Your task to perform on an android device: turn off smart reply in the gmail app Image 0: 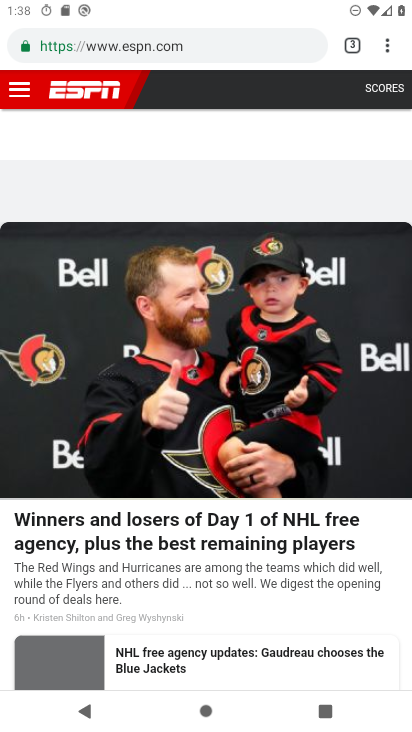
Step 0: press home button
Your task to perform on an android device: turn off smart reply in the gmail app Image 1: 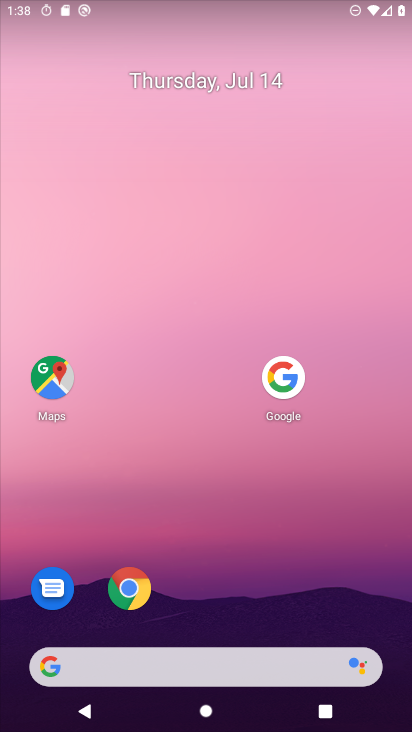
Step 1: drag from (181, 669) to (277, 158)
Your task to perform on an android device: turn off smart reply in the gmail app Image 2: 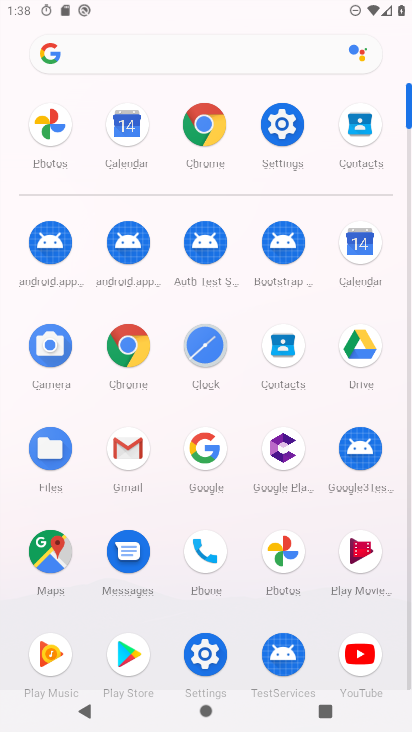
Step 2: click (126, 457)
Your task to perform on an android device: turn off smart reply in the gmail app Image 3: 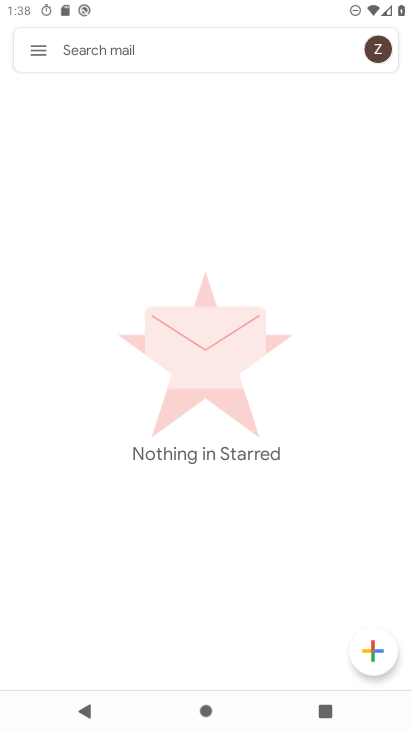
Step 3: click (37, 50)
Your task to perform on an android device: turn off smart reply in the gmail app Image 4: 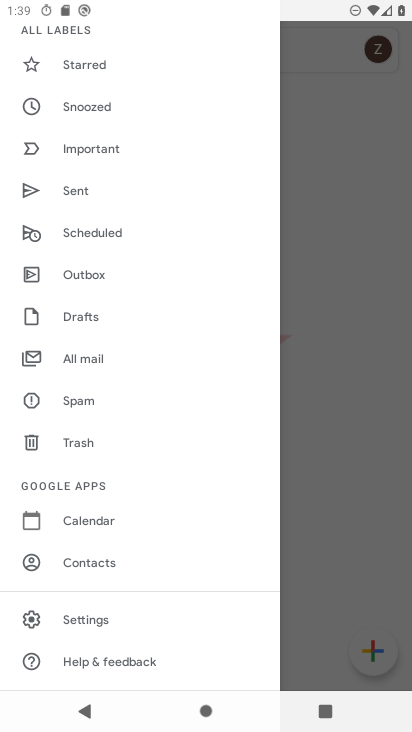
Step 4: click (101, 617)
Your task to perform on an android device: turn off smart reply in the gmail app Image 5: 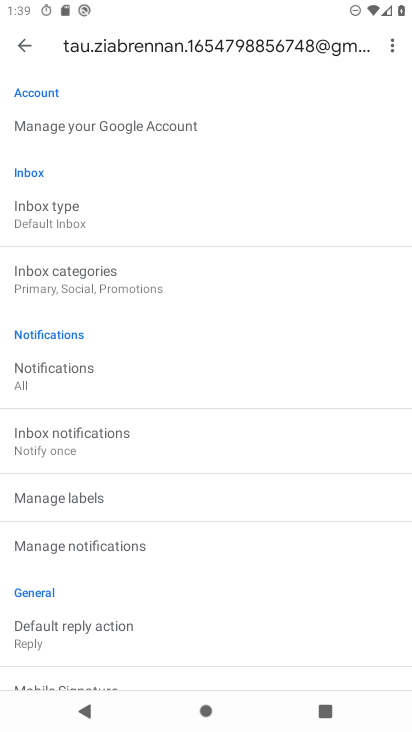
Step 5: drag from (211, 586) to (303, 0)
Your task to perform on an android device: turn off smart reply in the gmail app Image 6: 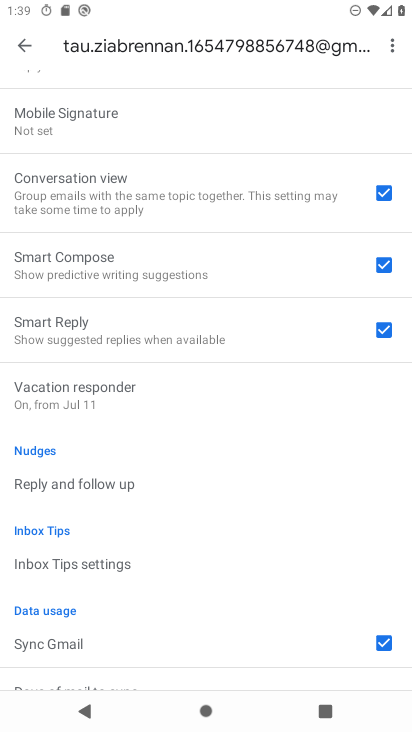
Step 6: click (386, 329)
Your task to perform on an android device: turn off smart reply in the gmail app Image 7: 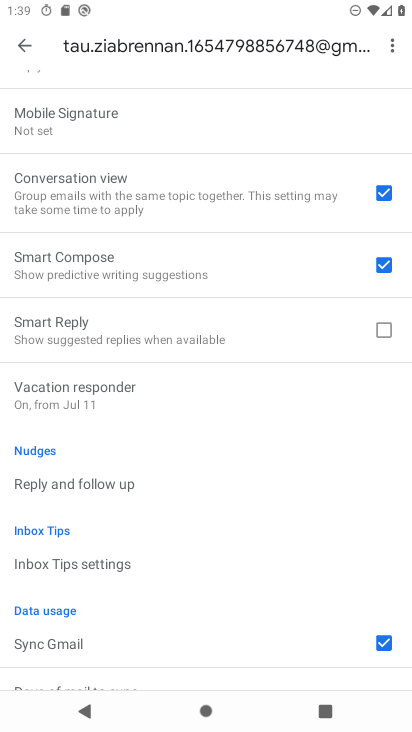
Step 7: task complete